Your task to perform on an android device: check android version Image 0: 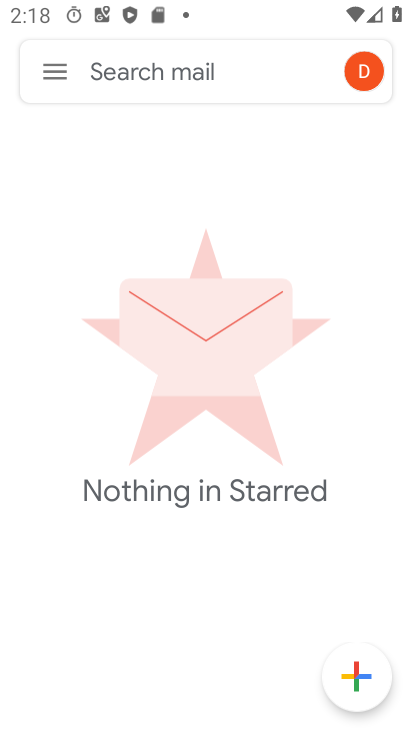
Step 0: press home button
Your task to perform on an android device: check android version Image 1: 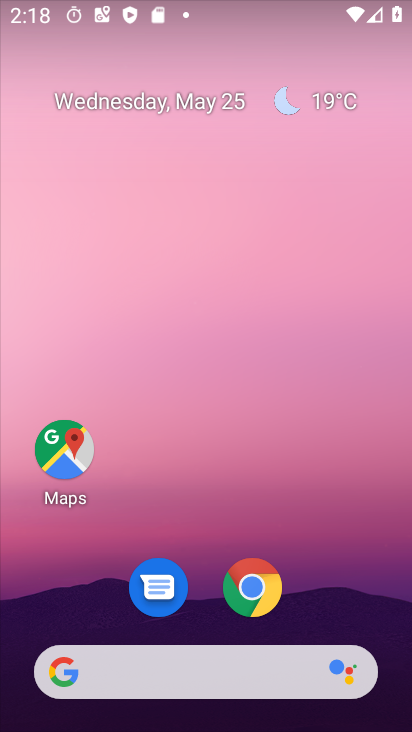
Step 1: drag from (203, 599) to (226, 121)
Your task to perform on an android device: check android version Image 2: 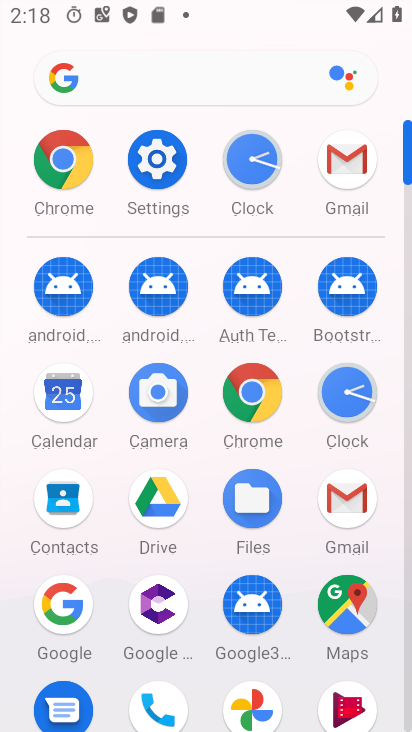
Step 2: click (158, 164)
Your task to perform on an android device: check android version Image 3: 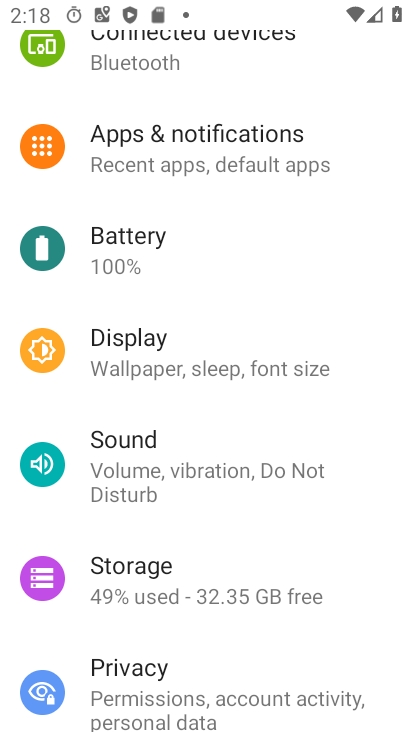
Step 3: drag from (261, 622) to (288, 26)
Your task to perform on an android device: check android version Image 4: 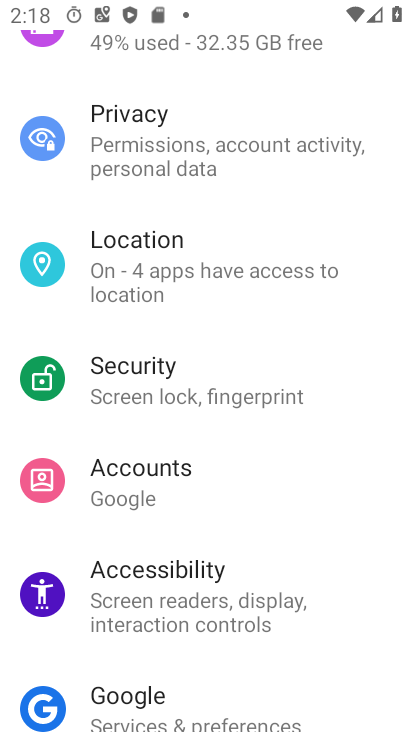
Step 4: drag from (251, 640) to (261, 122)
Your task to perform on an android device: check android version Image 5: 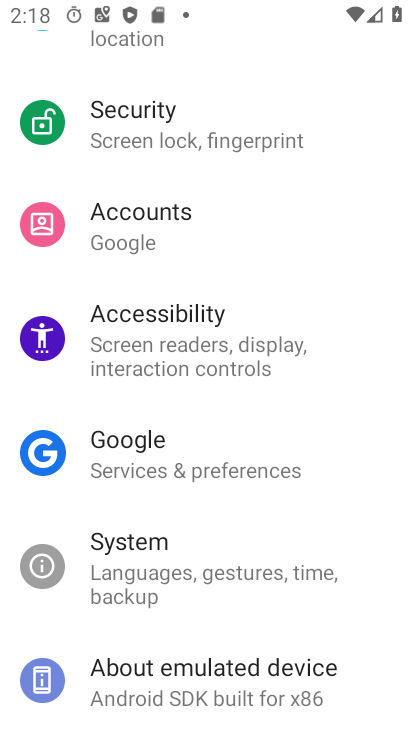
Step 5: click (184, 683)
Your task to perform on an android device: check android version Image 6: 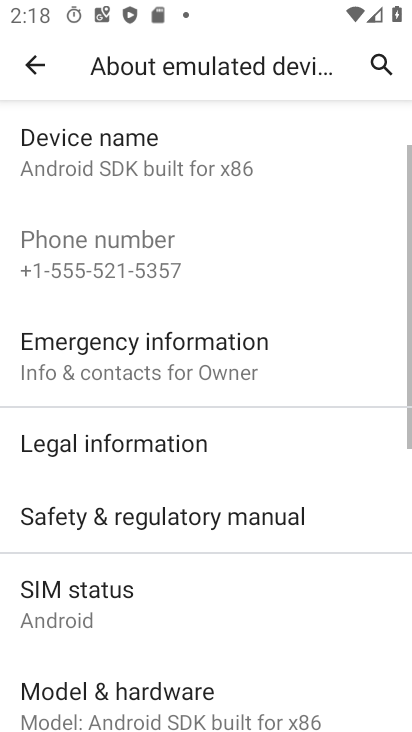
Step 6: drag from (202, 648) to (282, 160)
Your task to perform on an android device: check android version Image 7: 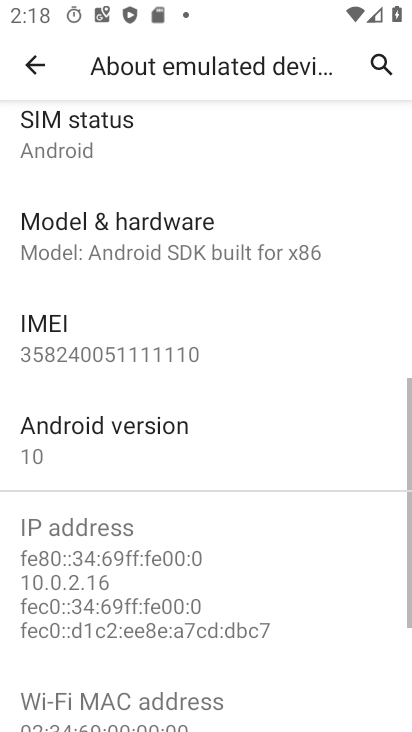
Step 7: click (101, 458)
Your task to perform on an android device: check android version Image 8: 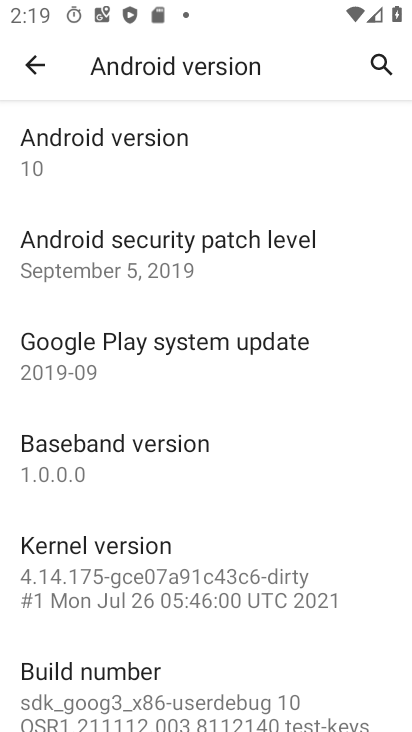
Step 8: task complete